Your task to perform on an android device: turn pop-ups off in chrome Image 0: 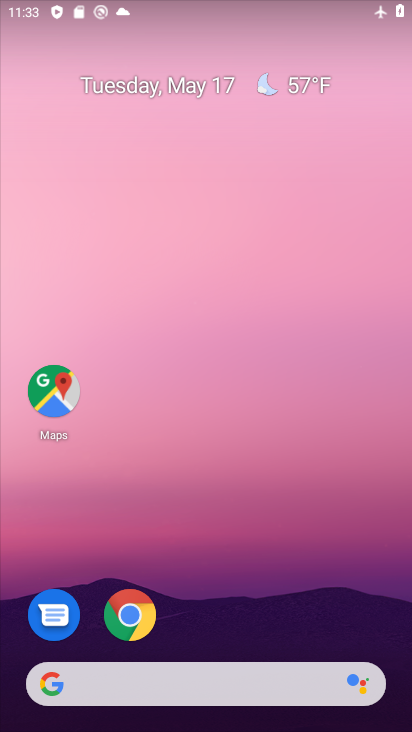
Step 0: drag from (354, 631) to (259, 87)
Your task to perform on an android device: turn pop-ups off in chrome Image 1: 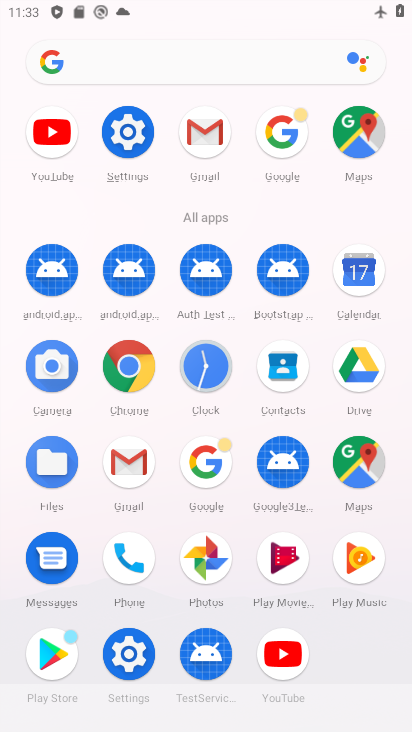
Step 1: click (141, 380)
Your task to perform on an android device: turn pop-ups off in chrome Image 2: 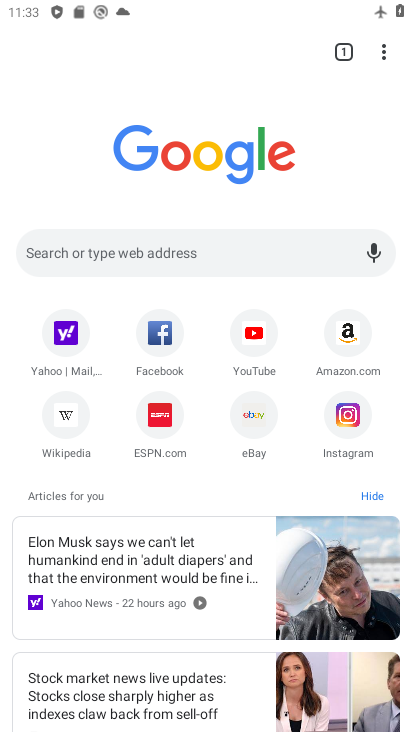
Step 2: click (388, 46)
Your task to perform on an android device: turn pop-ups off in chrome Image 3: 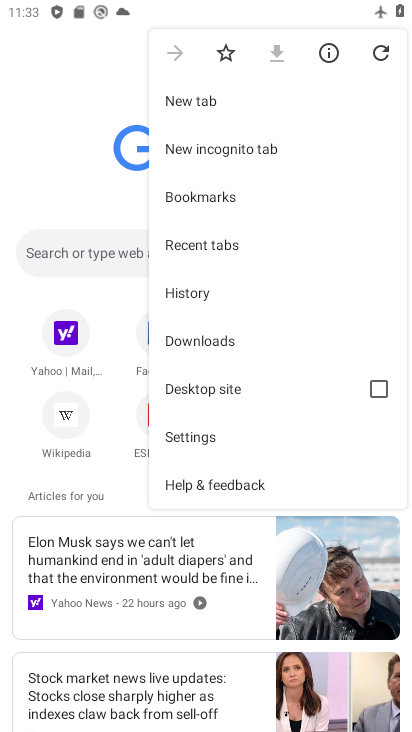
Step 3: click (239, 431)
Your task to perform on an android device: turn pop-ups off in chrome Image 4: 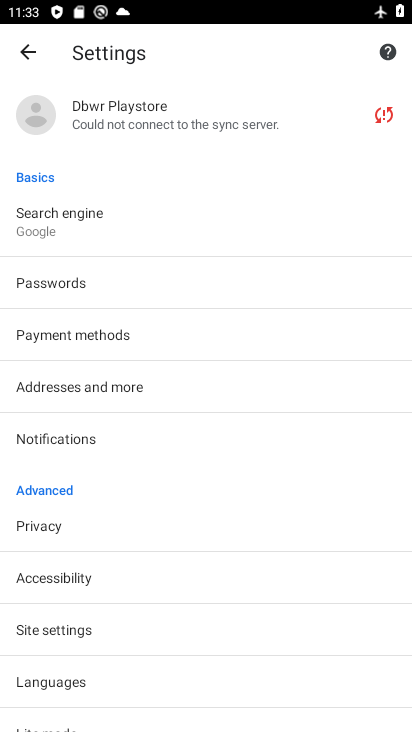
Step 4: click (129, 624)
Your task to perform on an android device: turn pop-ups off in chrome Image 5: 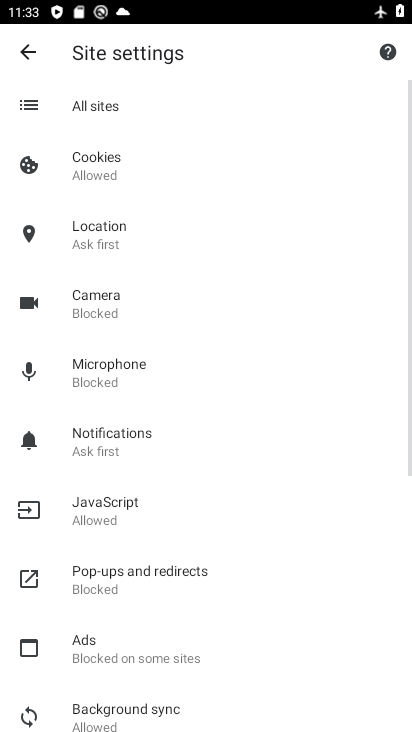
Step 5: click (148, 578)
Your task to perform on an android device: turn pop-ups off in chrome Image 6: 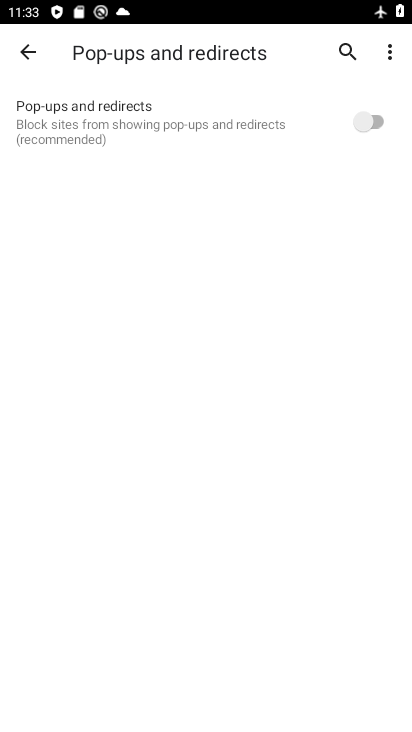
Step 6: task complete